Your task to perform on an android device: Add "bose soundlink" to the cart on ebay Image 0: 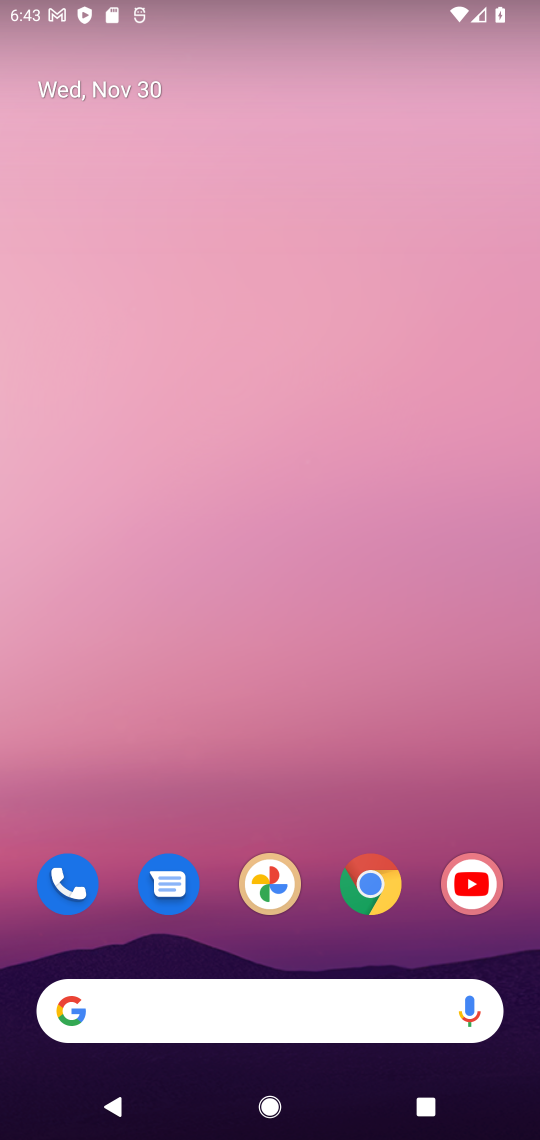
Step 0: click (380, 908)
Your task to perform on an android device: Add "bose soundlink" to the cart on ebay Image 1: 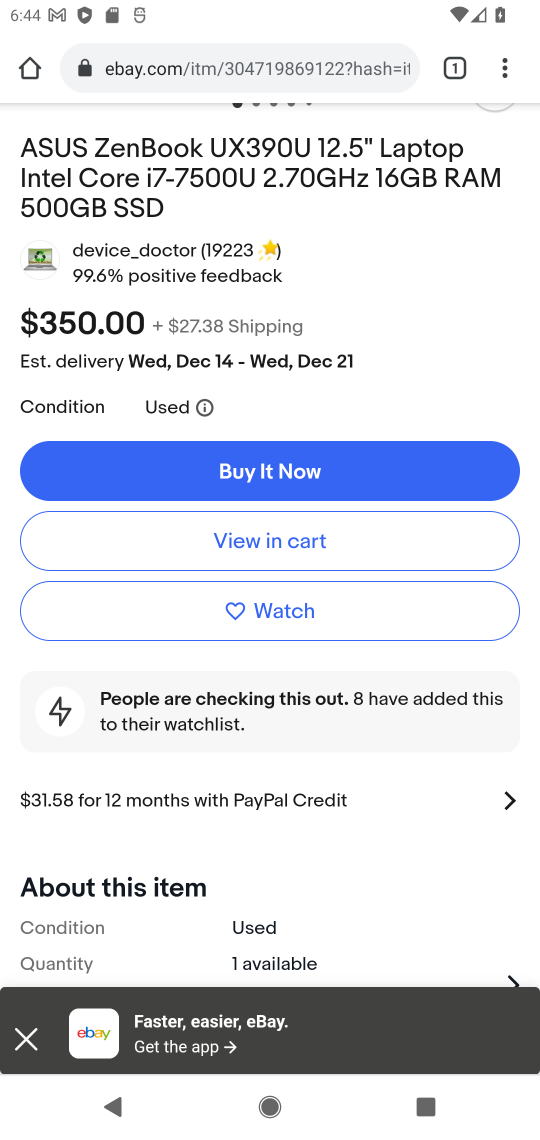
Step 1: drag from (414, 235) to (469, 724)
Your task to perform on an android device: Add "bose soundlink" to the cart on ebay Image 2: 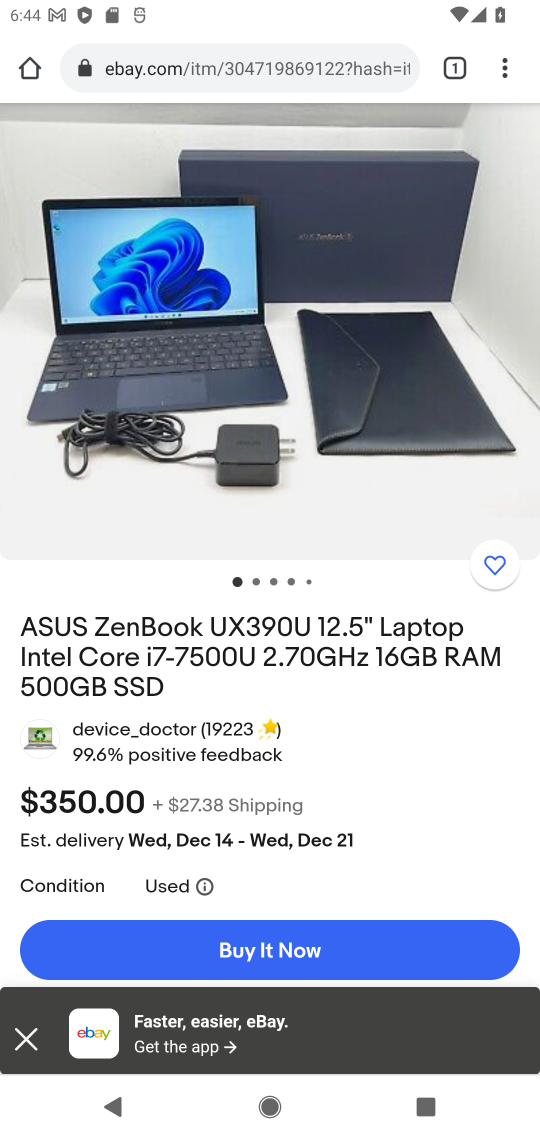
Step 2: drag from (450, 253) to (444, 627)
Your task to perform on an android device: Add "bose soundlink" to the cart on ebay Image 3: 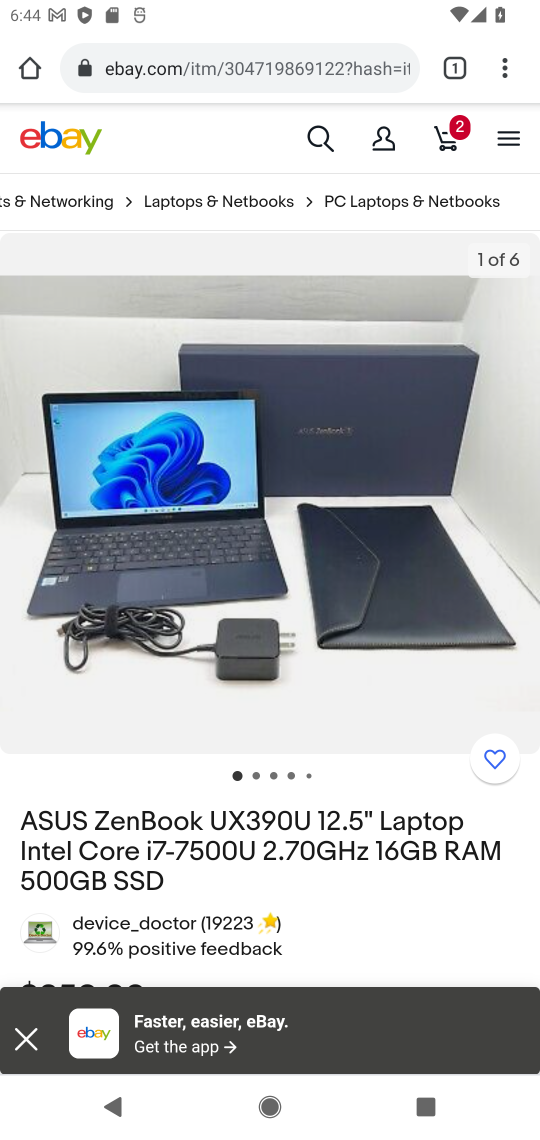
Step 3: click (310, 136)
Your task to perform on an android device: Add "bose soundlink" to the cart on ebay Image 4: 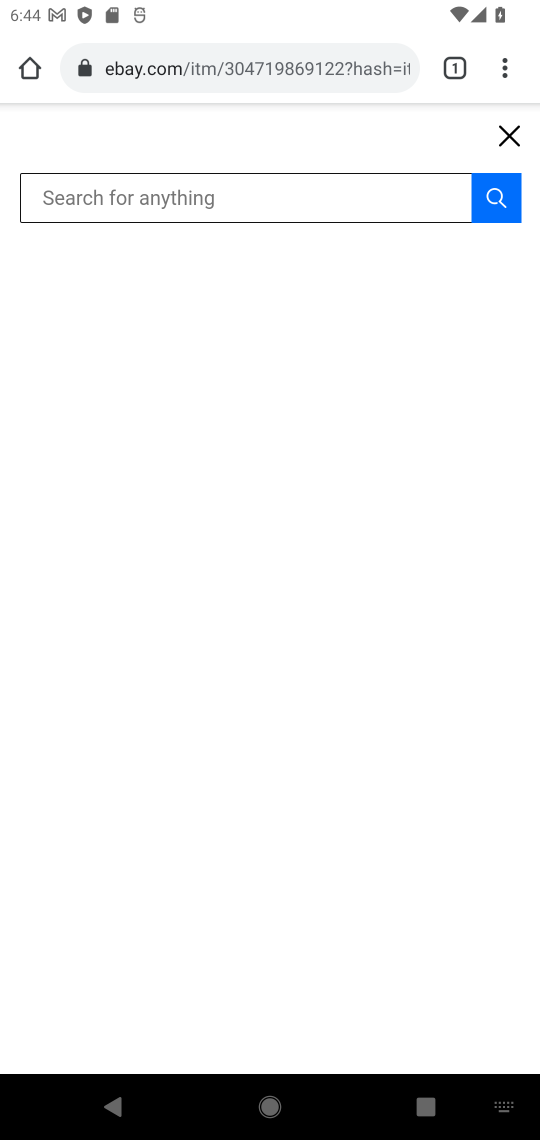
Step 4: type "bose soundlink"
Your task to perform on an android device: Add "bose soundlink" to the cart on ebay Image 5: 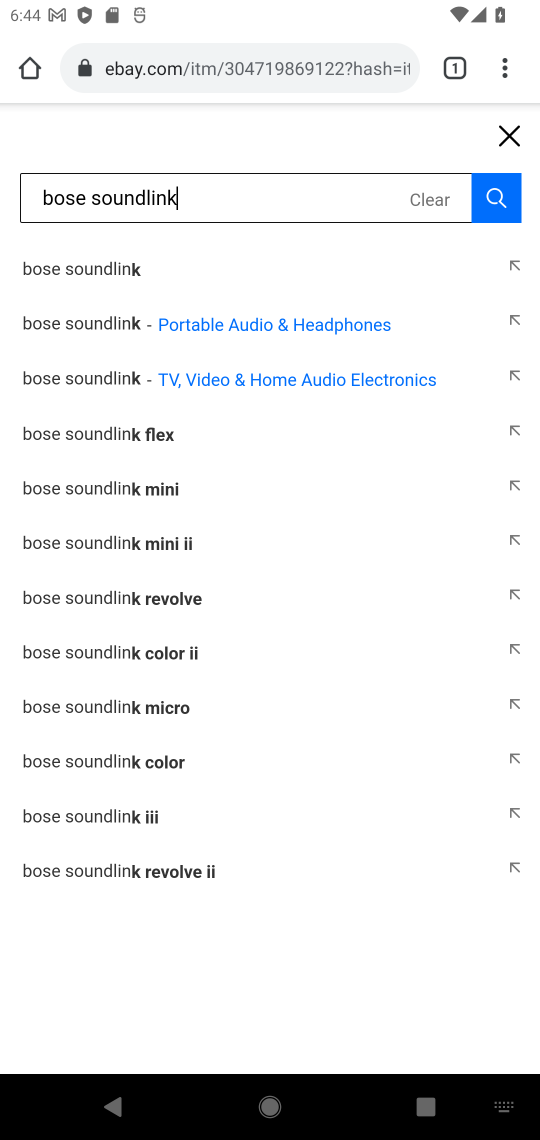
Step 5: click (84, 263)
Your task to perform on an android device: Add "bose soundlink" to the cart on ebay Image 6: 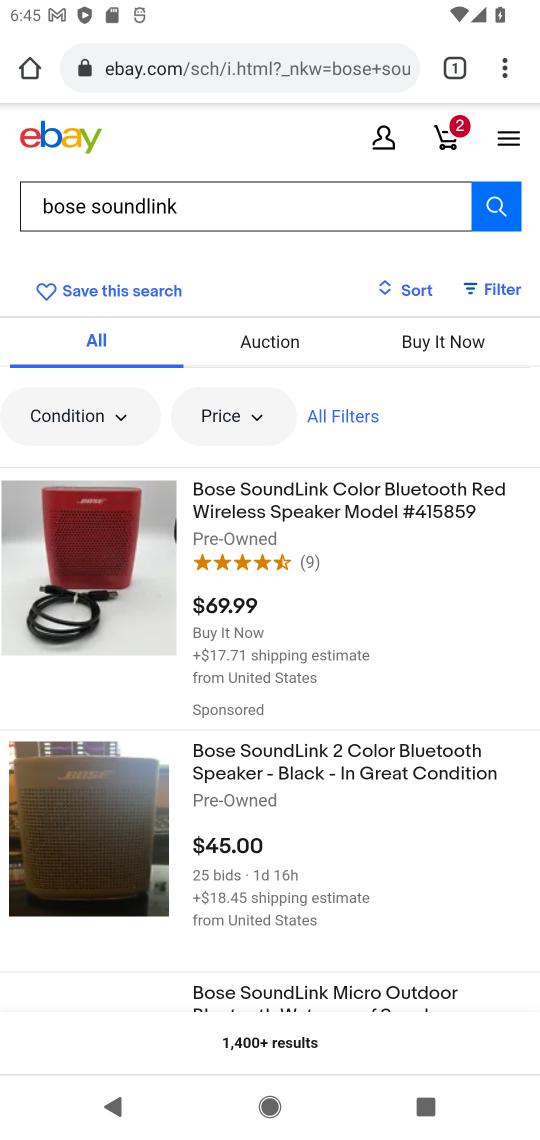
Step 6: click (301, 514)
Your task to perform on an android device: Add "bose soundlink" to the cart on ebay Image 7: 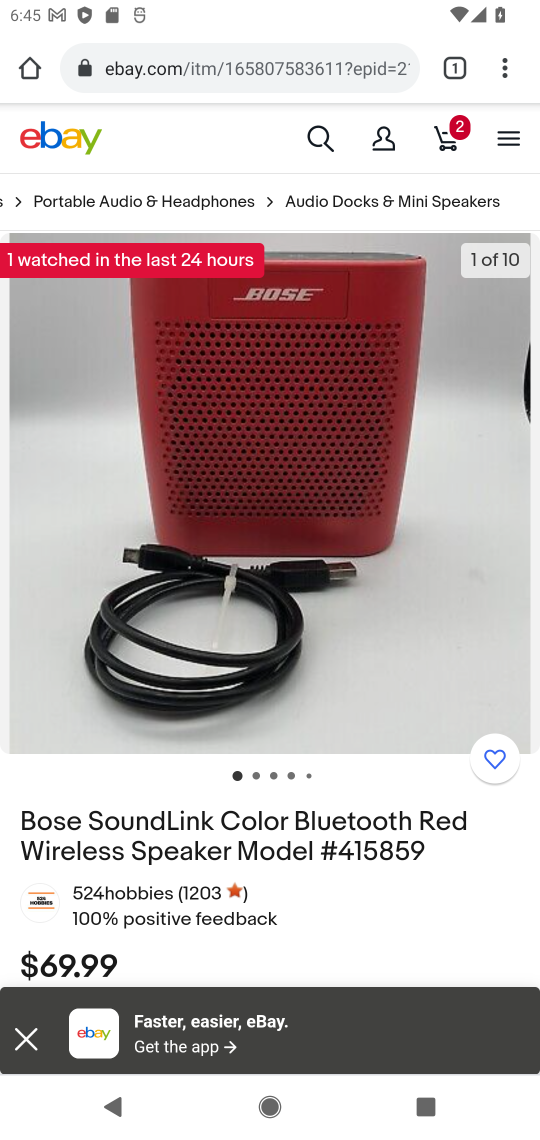
Step 7: drag from (304, 806) to (287, 499)
Your task to perform on an android device: Add "bose soundlink" to the cart on ebay Image 8: 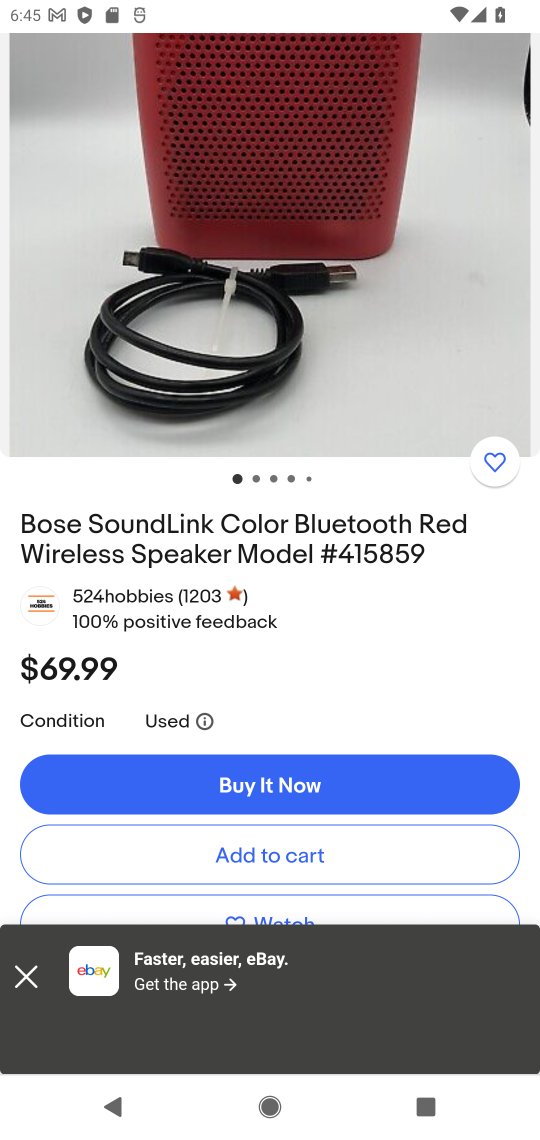
Step 8: click (250, 848)
Your task to perform on an android device: Add "bose soundlink" to the cart on ebay Image 9: 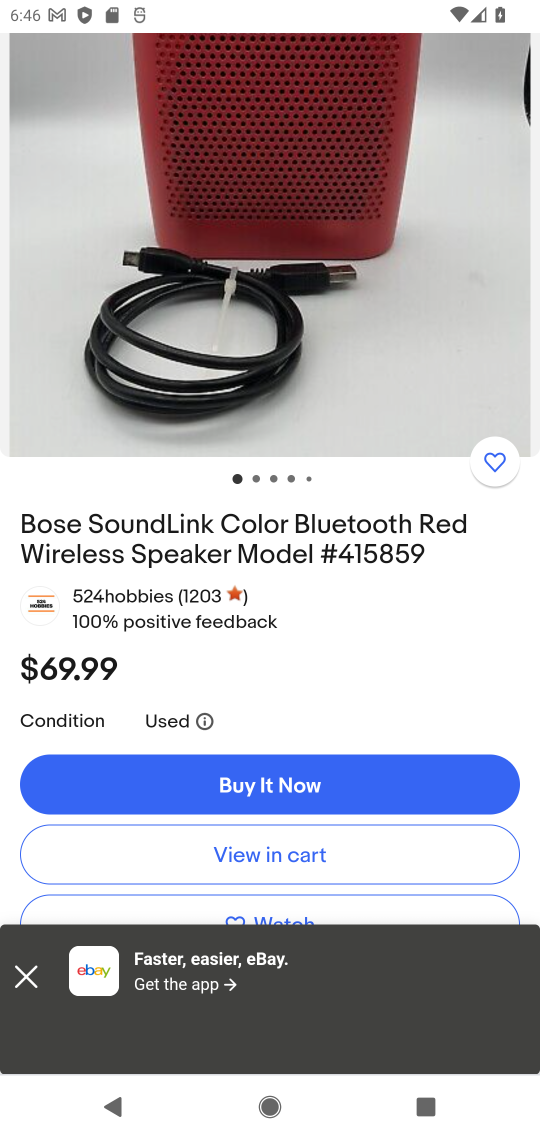
Step 9: task complete